Your task to perform on an android device: Open CNN.com Image 0: 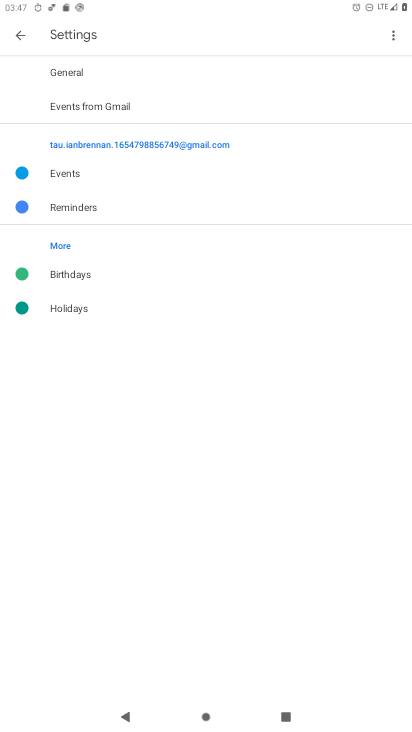
Step 0: press home button
Your task to perform on an android device: Open CNN.com Image 1: 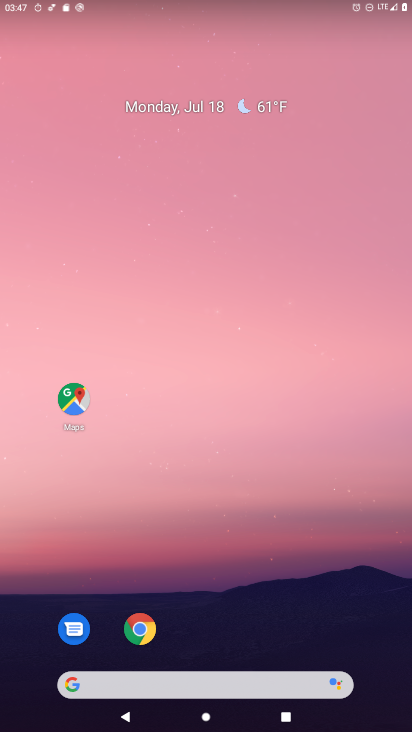
Step 1: click (141, 629)
Your task to perform on an android device: Open CNN.com Image 2: 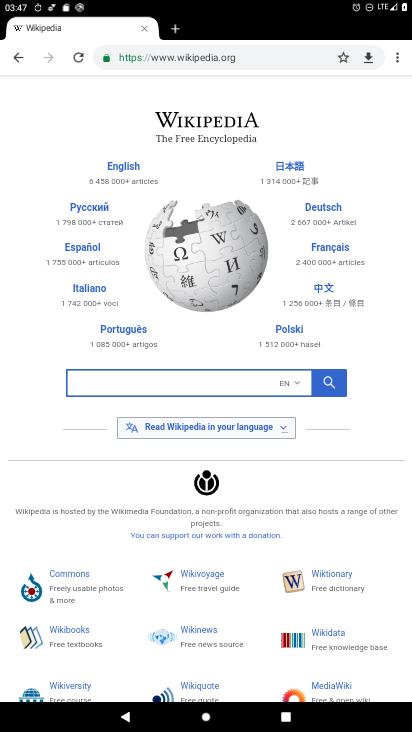
Step 2: click (263, 63)
Your task to perform on an android device: Open CNN.com Image 3: 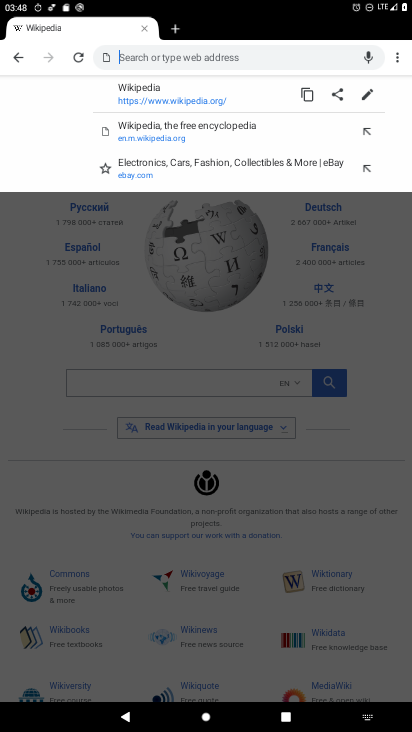
Step 3: type "CNN.com"
Your task to perform on an android device: Open CNN.com Image 4: 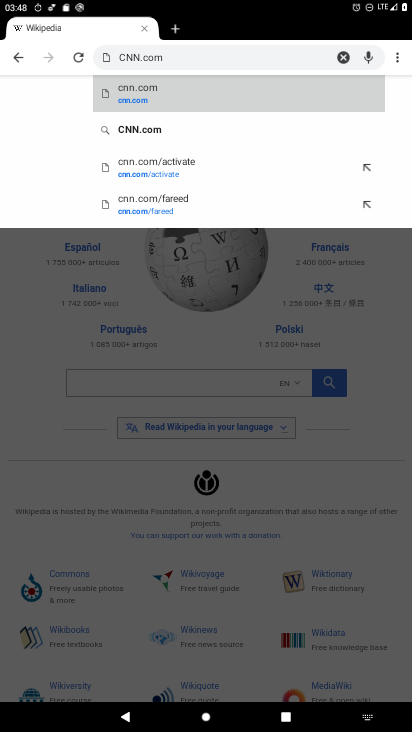
Step 4: click (146, 129)
Your task to perform on an android device: Open CNN.com Image 5: 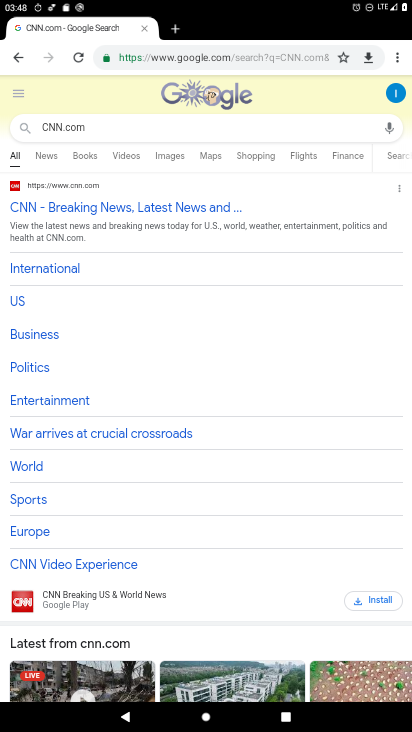
Step 5: click (186, 205)
Your task to perform on an android device: Open CNN.com Image 6: 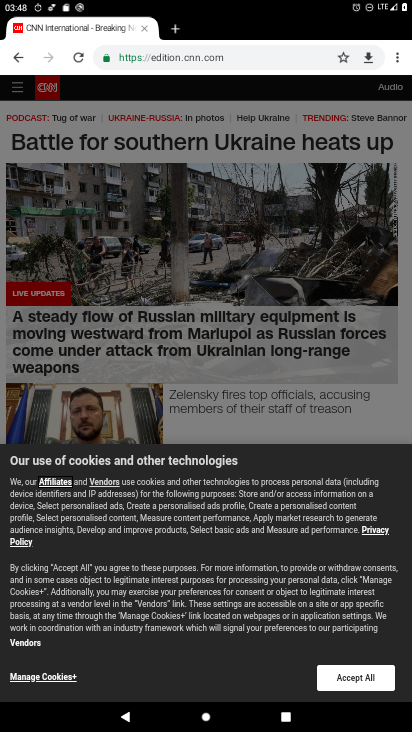
Step 6: click (347, 679)
Your task to perform on an android device: Open CNN.com Image 7: 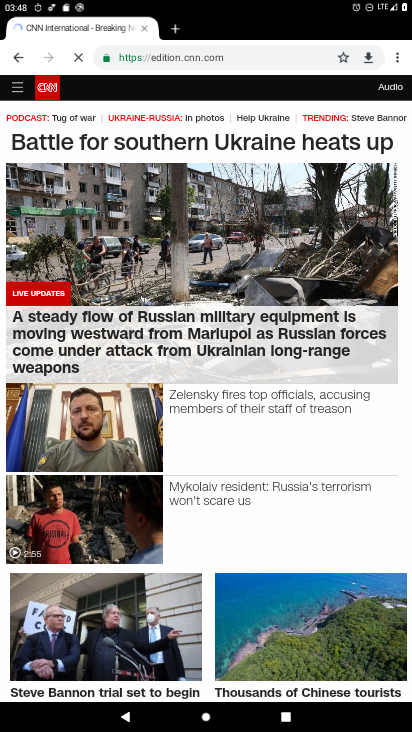
Step 7: task complete